Your task to perform on an android device: Is it going to rain tomorrow? Image 0: 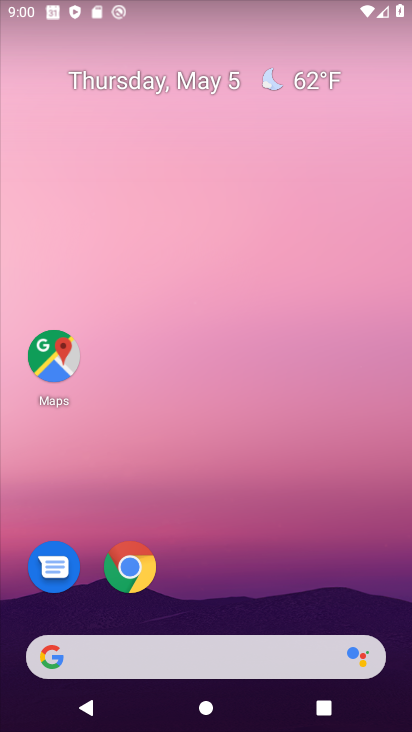
Step 0: click (264, 77)
Your task to perform on an android device: Is it going to rain tomorrow? Image 1: 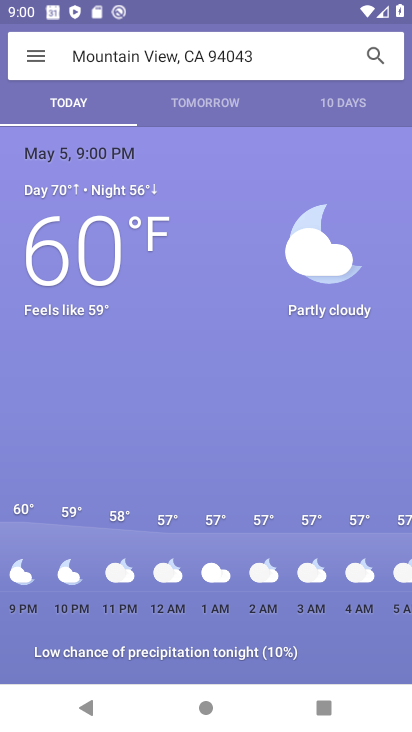
Step 1: click (184, 105)
Your task to perform on an android device: Is it going to rain tomorrow? Image 2: 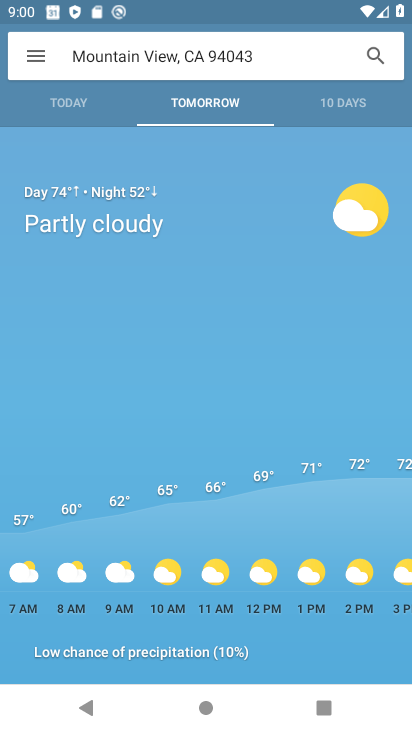
Step 2: task complete